Your task to perform on an android device: Find coffee shops on Maps Image 0: 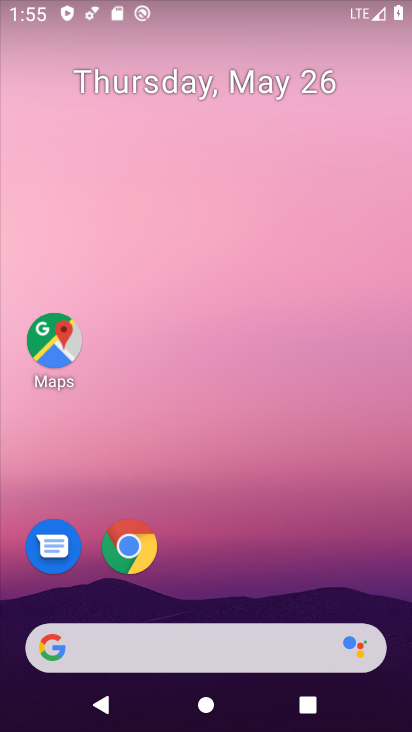
Step 0: click (64, 335)
Your task to perform on an android device: Find coffee shops on Maps Image 1: 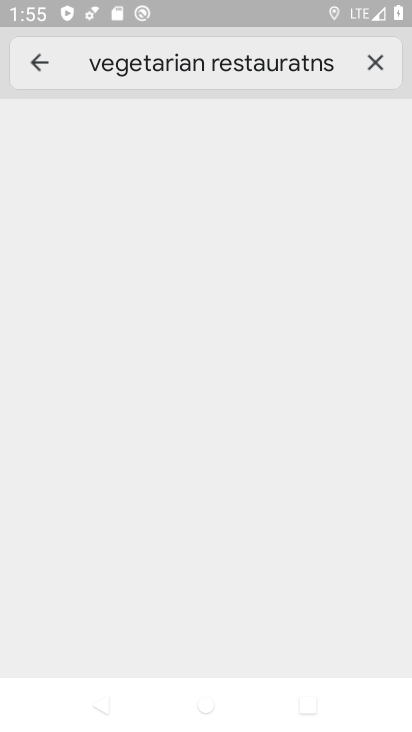
Step 1: click (373, 68)
Your task to perform on an android device: Find coffee shops on Maps Image 2: 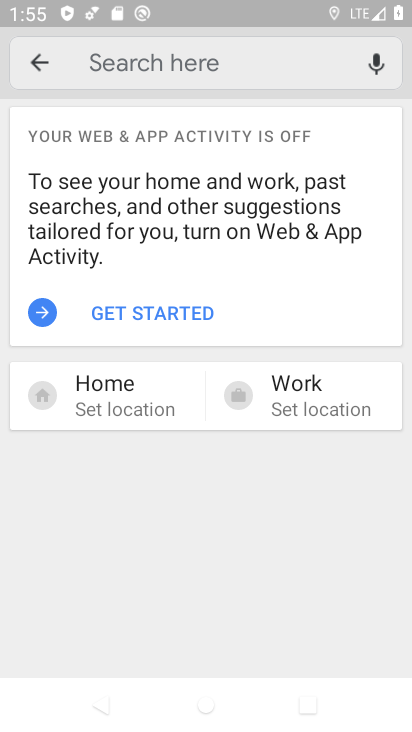
Step 2: click (129, 45)
Your task to perform on an android device: Find coffee shops on Maps Image 3: 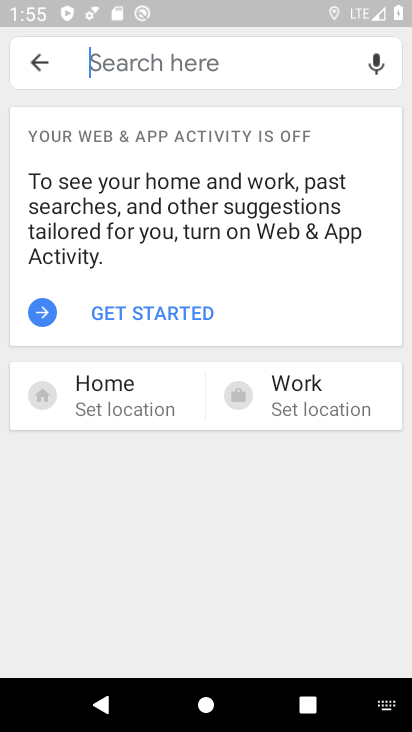
Step 3: type "coffee shops"
Your task to perform on an android device: Find coffee shops on Maps Image 4: 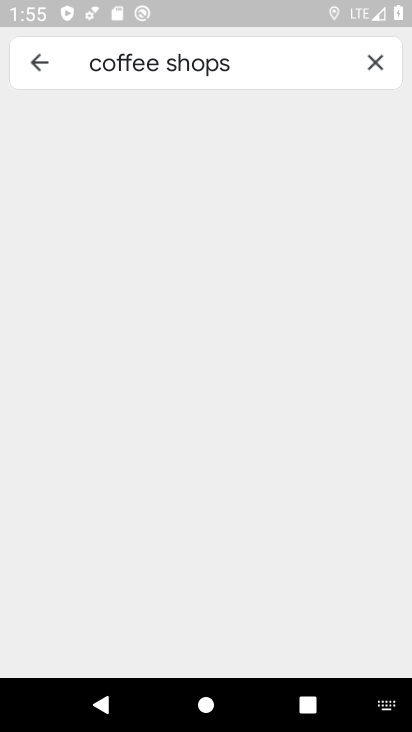
Step 4: task complete